Your task to perform on an android device: turn off priority inbox in the gmail app Image 0: 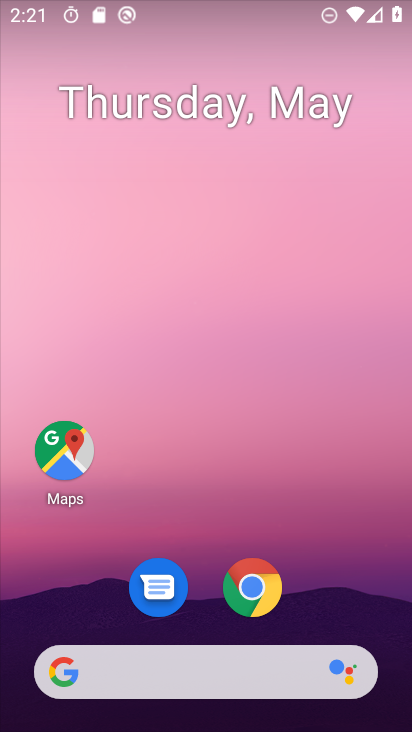
Step 0: drag from (340, 446) to (318, 35)
Your task to perform on an android device: turn off priority inbox in the gmail app Image 1: 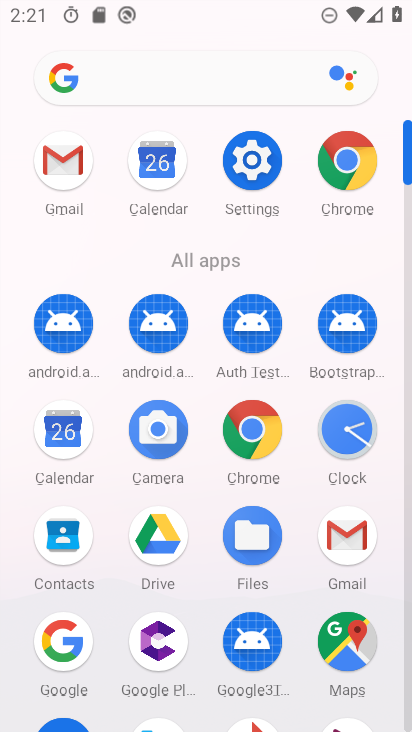
Step 1: click (69, 142)
Your task to perform on an android device: turn off priority inbox in the gmail app Image 2: 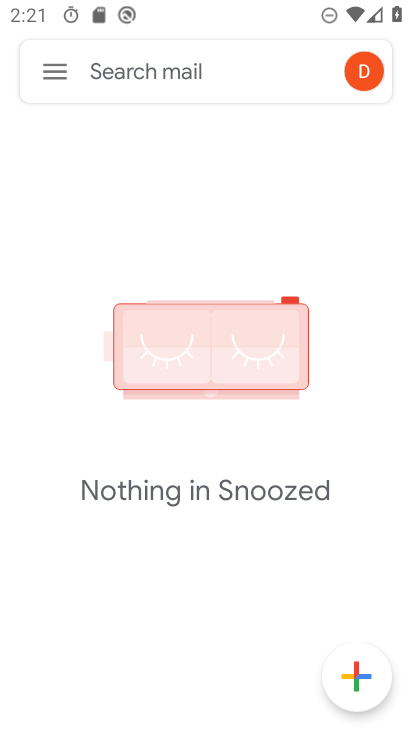
Step 2: click (57, 62)
Your task to perform on an android device: turn off priority inbox in the gmail app Image 3: 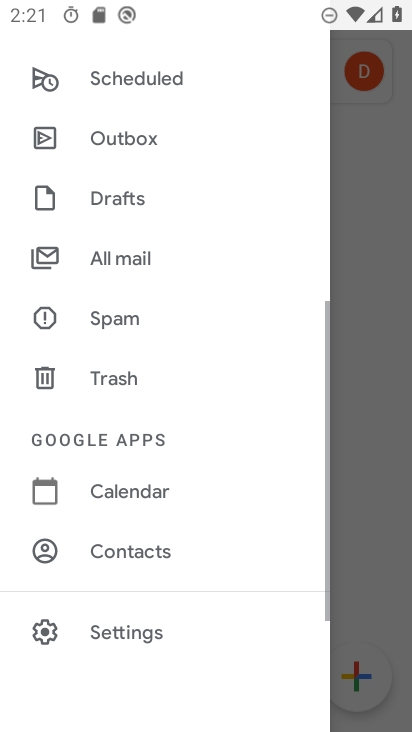
Step 3: click (145, 626)
Your task to perform on an android device: turn off priority inbox in the gmail app Image 4: 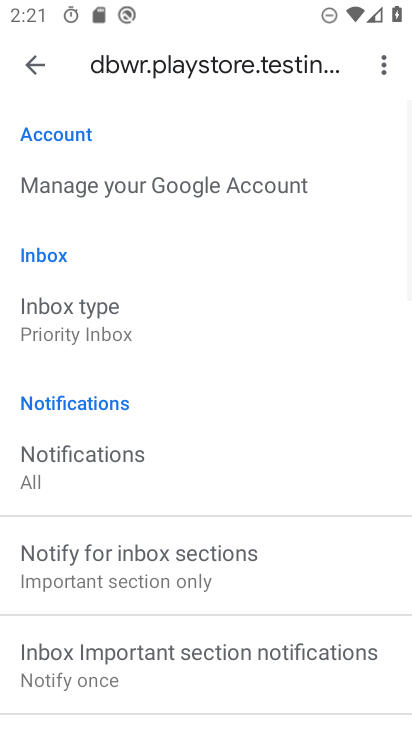
Step 4: click (111, 311)
Your task to perform on an android device: turn off priority inbox in the gmail app Image 5: 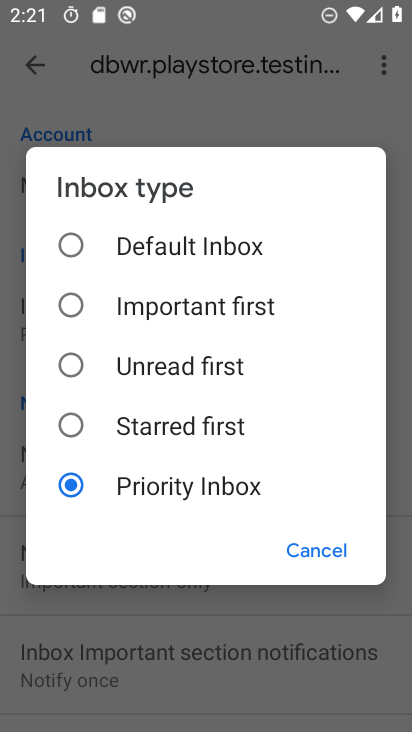
Step 5: task complete